Your task to perform on an android device: Open Chrome and go to settings Image 0: 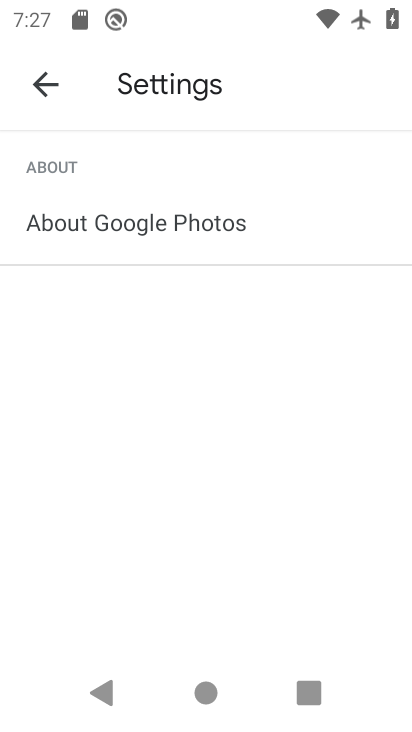
Step 0: press home button
Your task to perform on an android device: Open Chrome and go to settings Image 1: 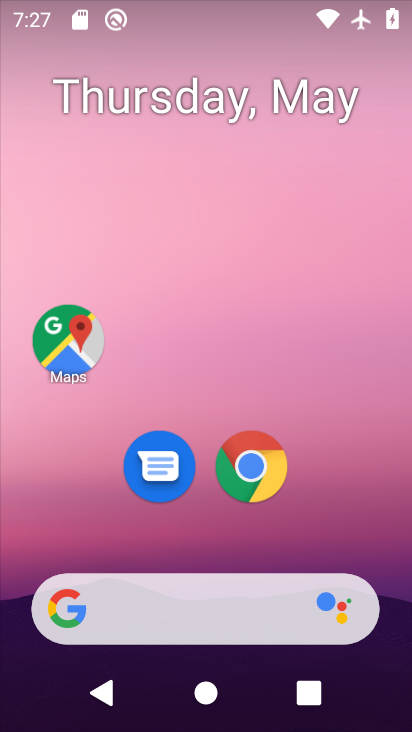
Step 1: click (278, 458)
Your task to perform on an android device: Open Chrome and go to settings Image 2: 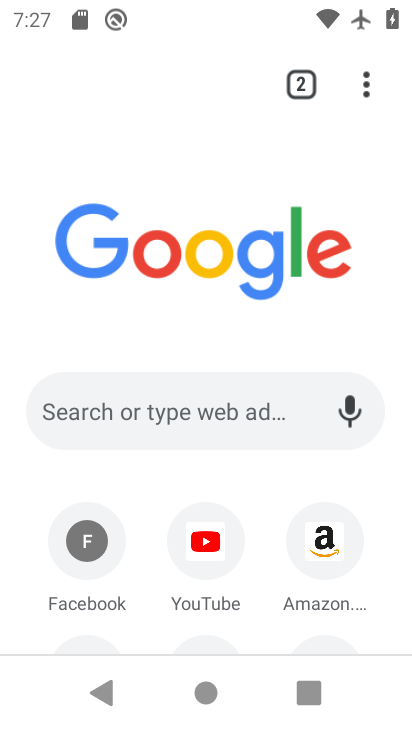
Step 2: click (373, 88)
Your task to perform on an android device: Open Chrome and go to settings Image 3: 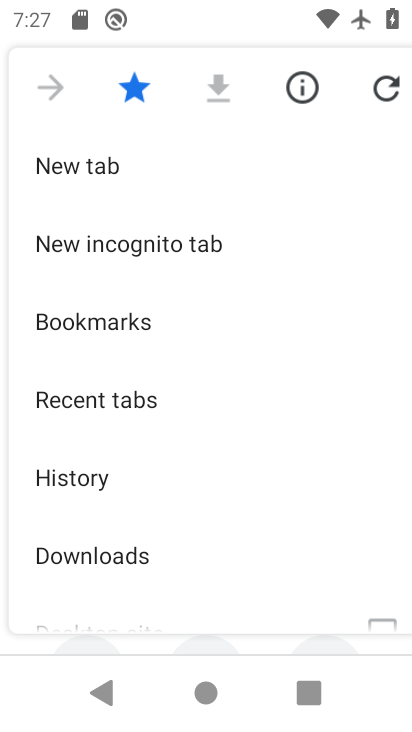
Step 3: drag from (184, 553) to (144, 239)
Your task to perform on an android device: Open Chrome and go to settings Image 4: 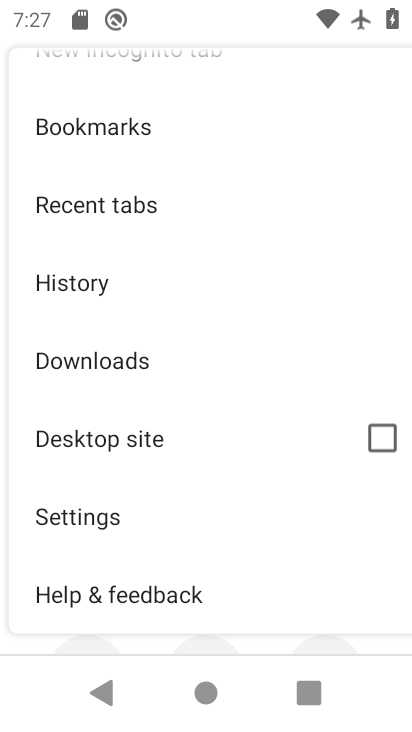
Step 4: click (142, 509)
Your task to perform on an android device: Open Chrome and go to settings Image 5: 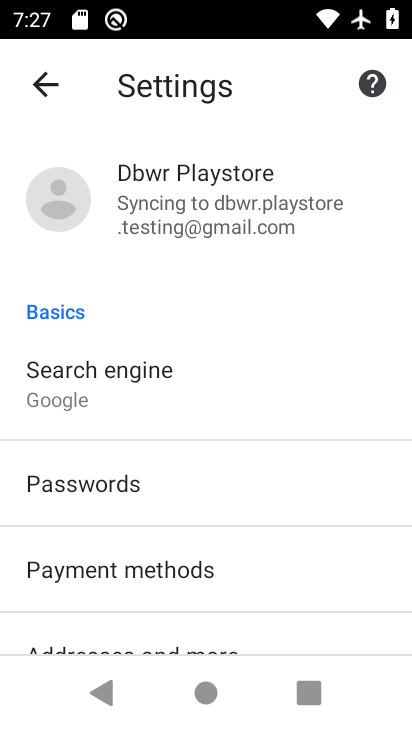
Step 5: task complete